Your task to perform on an android device: Open the calendar app, open the side menu, and click the "Day" option Image 0: 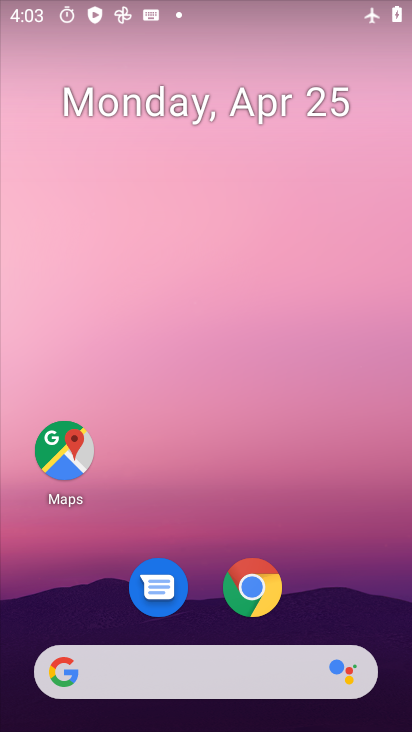
Step 0: drag from (387, 627) to (303, 172)
Your task to perform on an android device: Open the calendar app, open the side menu, and click the "Day" option Image 1: 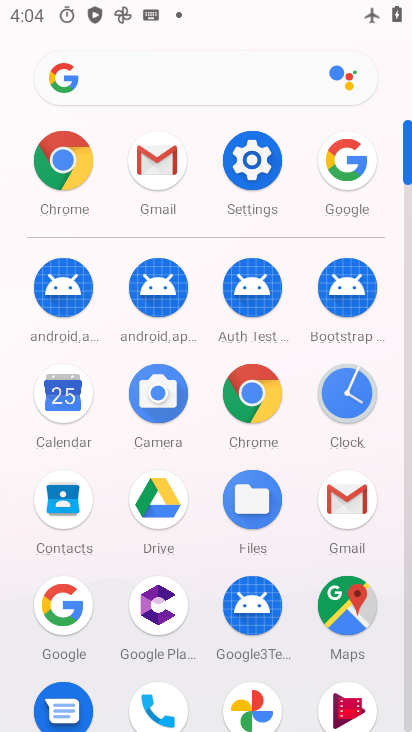
Step 1: click (51, 391)
Your task to perform on an android device: Open the calendar app, open the side menu, and click the "Day" option Image 2: 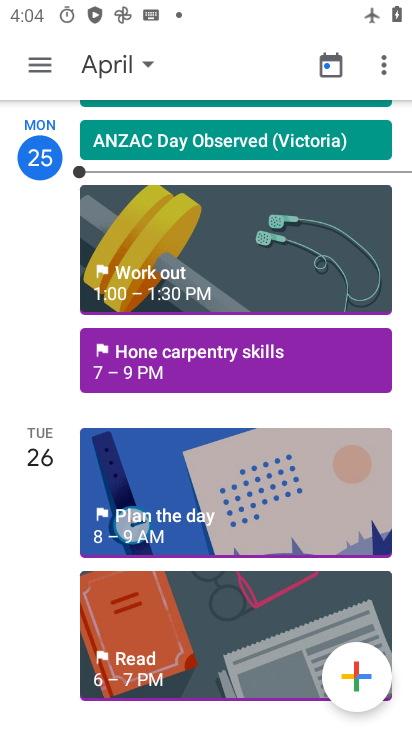
Step 2: click (26, 57)
Your task to perform on an android device: Open the calendar app, open the side menu, and click the "Day" option Image 3: 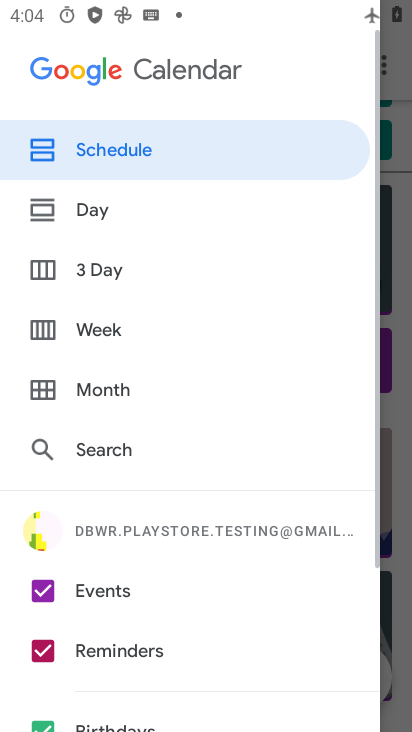
Step 3: click (111, 216)
Your task to perform on an android device: Open the calendar app, open the side menu, and click the "Day" option Image 4: 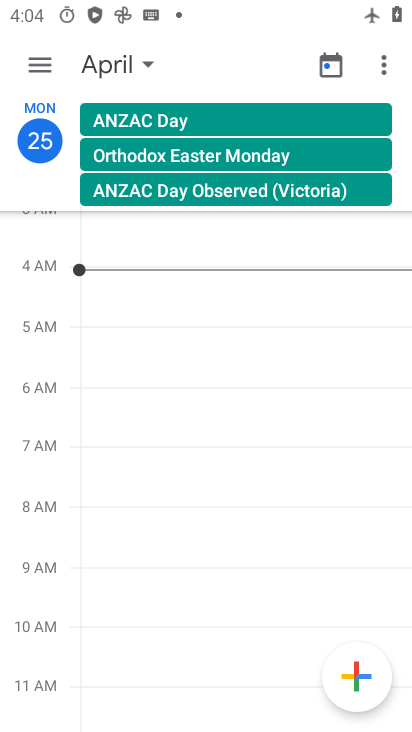
Step 4: task complete